Your task to perform on an android device: change alarm snooze length Image 0: 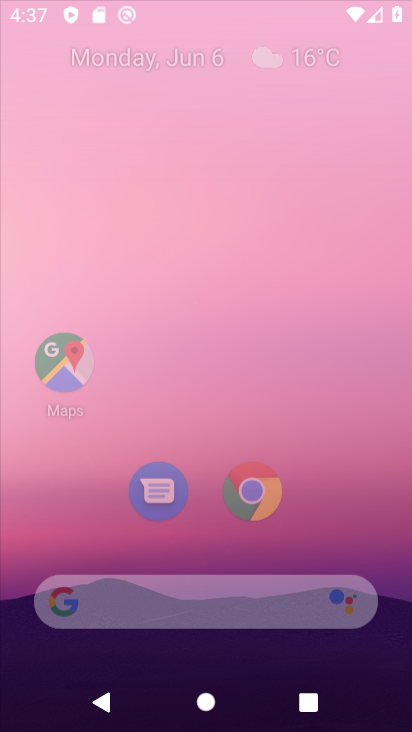
Step 0: click (341, 157)
Your task to perform on an android device: change alarm snooze length Image 1: 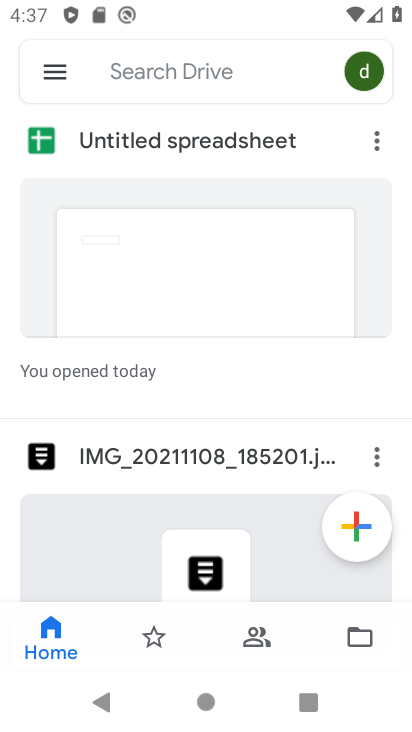
Step 1: press back button
Your task to perform on an android device: change alarm snooze length Image 2: 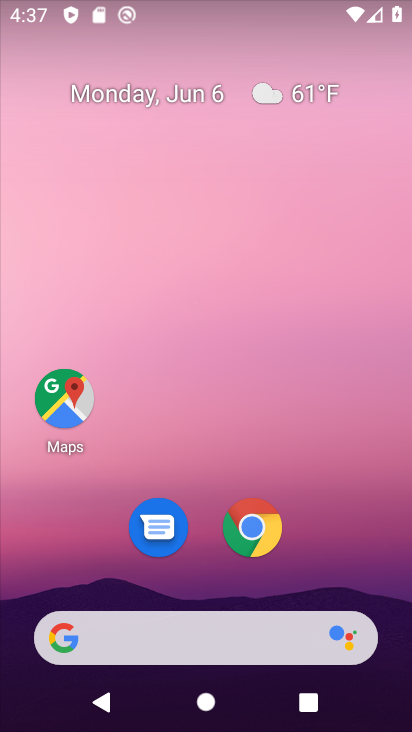
Step 2: drag from (398, 703) to (348, 43)
Your task to perform on an android device: change alarm snooze length Image 3: 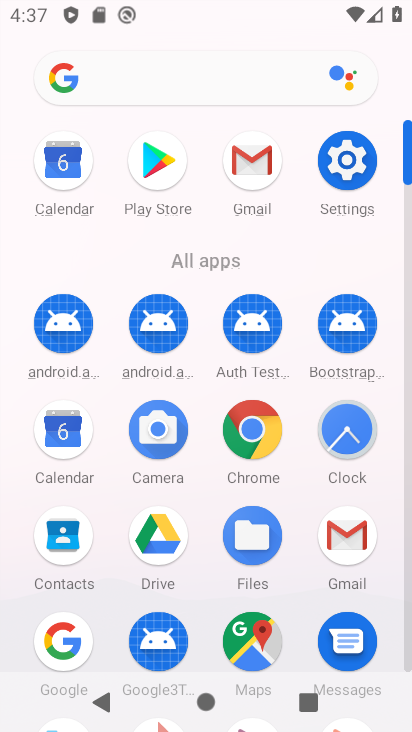
Step 3: click (341, 177)
Your task to perform on an android device: change alarm snooze length Image 4: 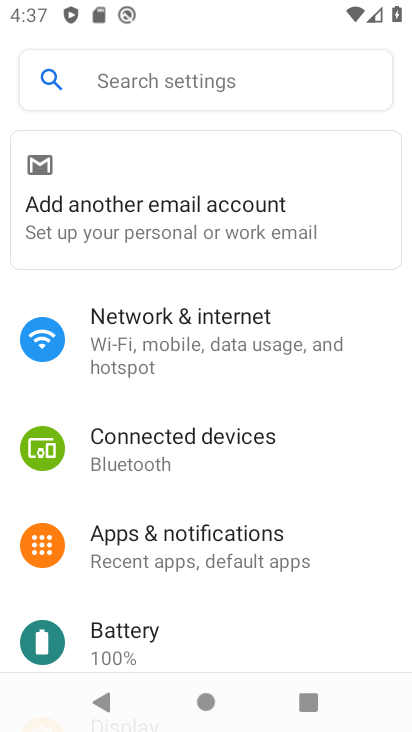
Step 4: drag from (271, 614) to (257, 238)
Your task to perform on an android device: change alarm snooze length Image 5: 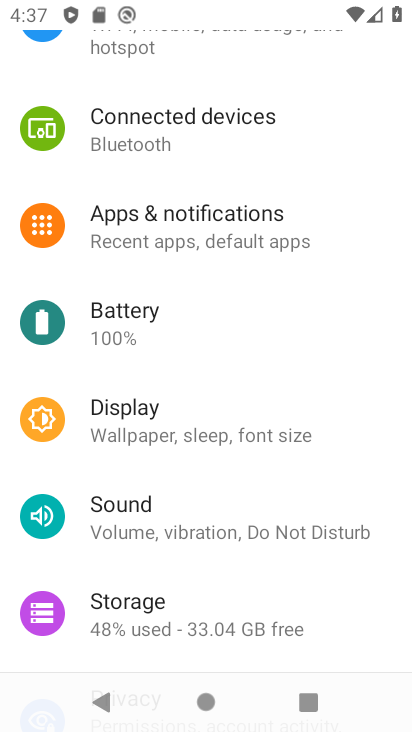
Step 5: drag from (291, 608) to (287, 271)
Your task to perform on an android device: change alarm snooze length Image 6: 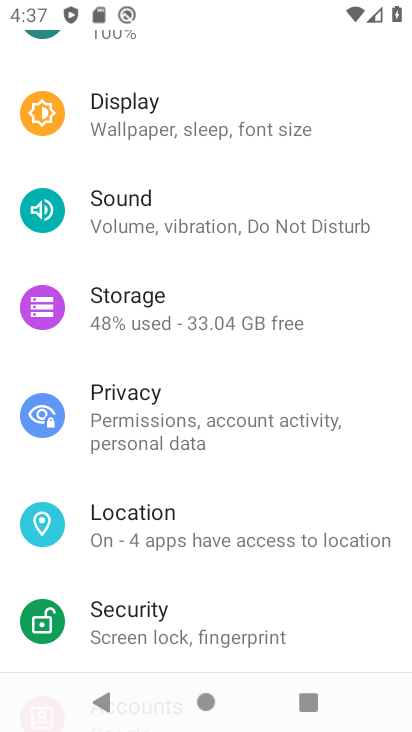
Step 6: click (221, 135)
Your task to perform on an android device: change alarm snooze length Image 7: 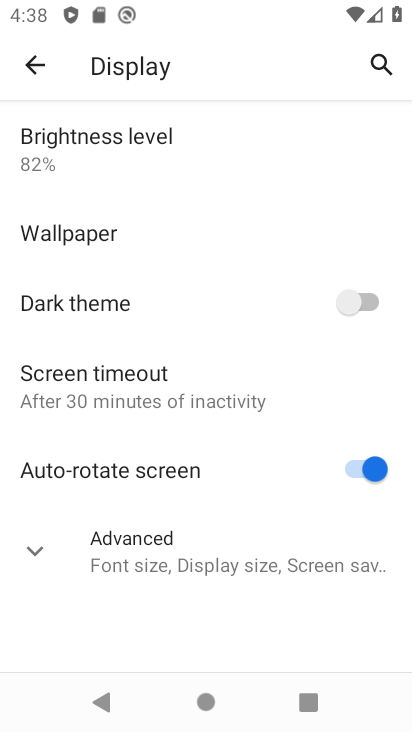
Step 7: press back button
Your task to perform on an android device: change alarm snooze length Image 8: 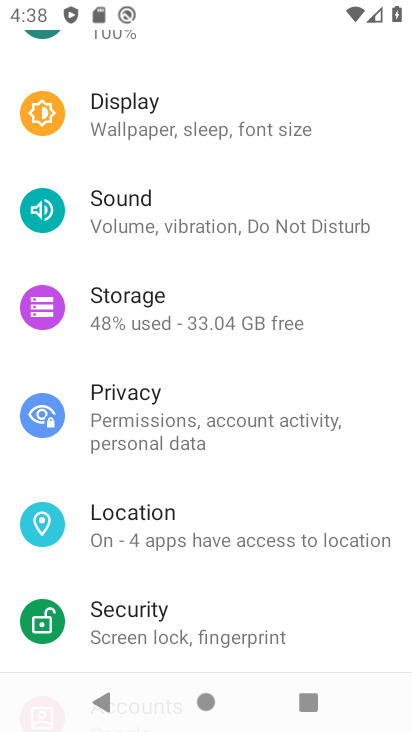
Step 8: press back button
Your task to perform on an android device: change alarm snooze length Image 9: 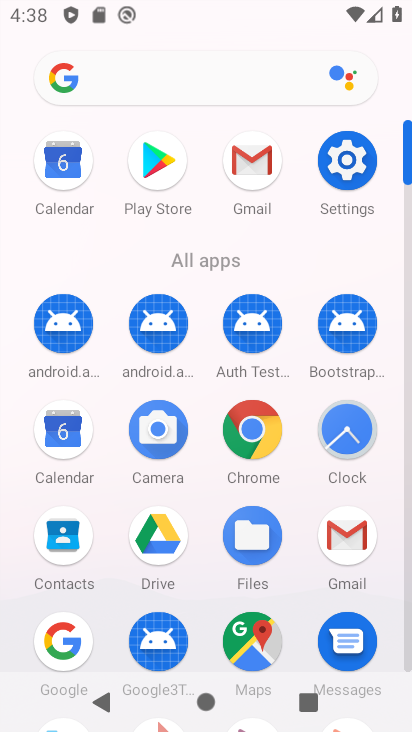
Step 9: click (347, 441)
Your task to perform on an android device: change alarm snooze length Image 10: 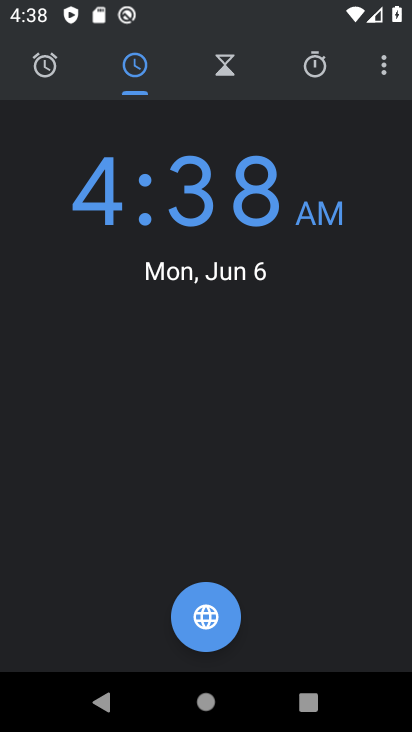
Step 10: click (382, 67)
Your task to perform on an android device: change alarm snooze length Image 11: 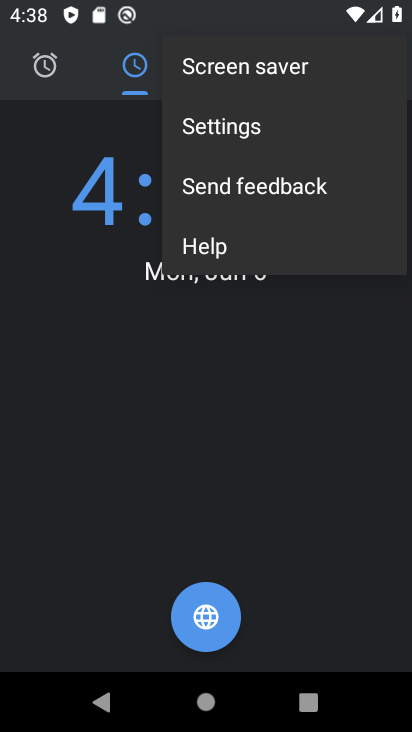
Step 11: click (382, 67)
Your task to perform on an android device: change alarm snooze length Image 12: 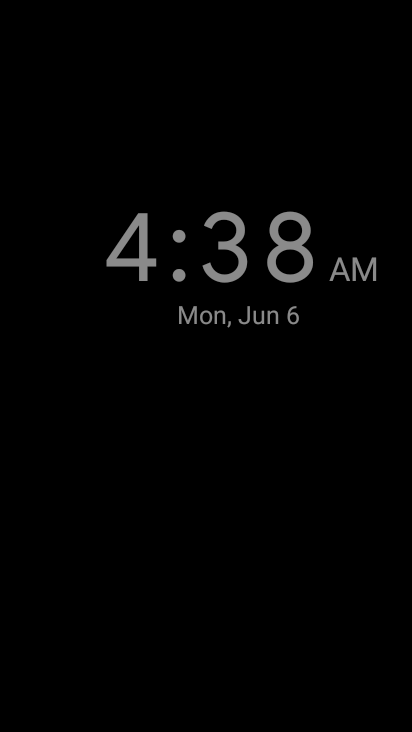
Step 12: press back button
Your task to perform on an android device: change alarm snooze length Image 13: 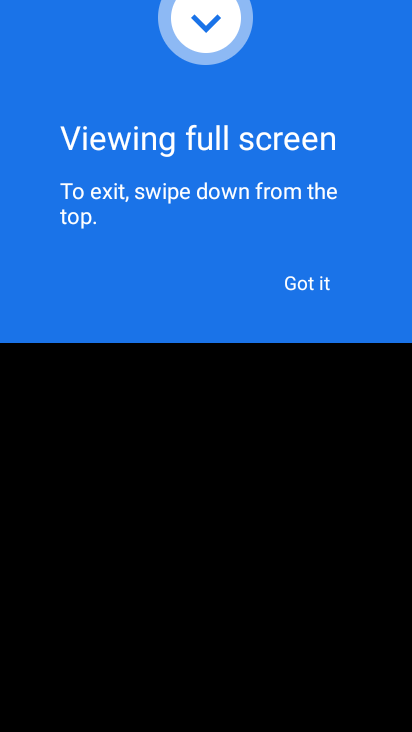
Step 13: press back button
Your task to perform on an android device: change alarm snooze length Image 14: 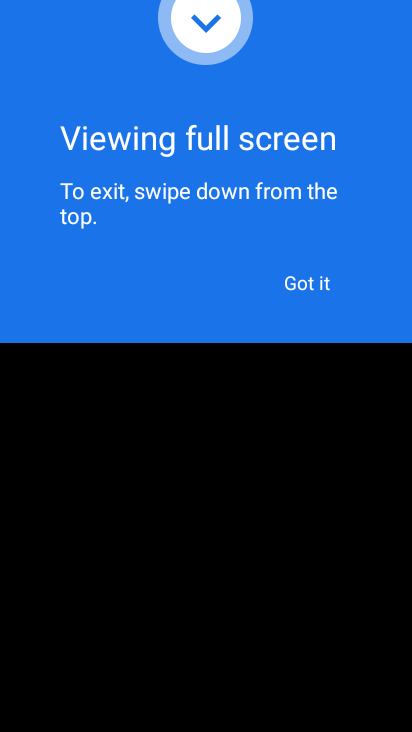
Step 14: press back button
Your task to perform on an android device: change alarm snooze length Image 15: 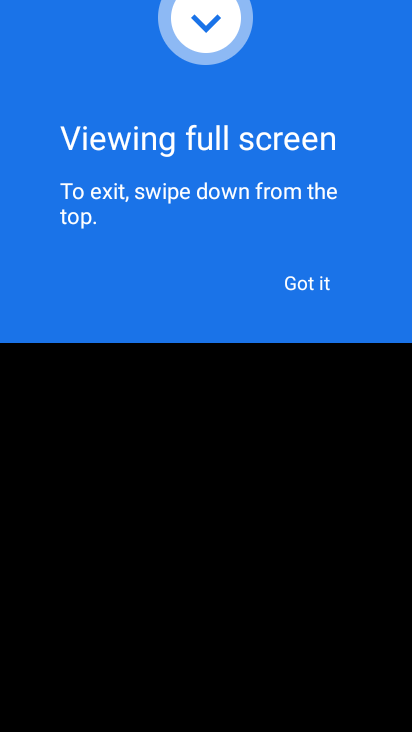
Step 15: click (319, 282)
Your task to perform on an android device: change alarm snooze length Image 16: 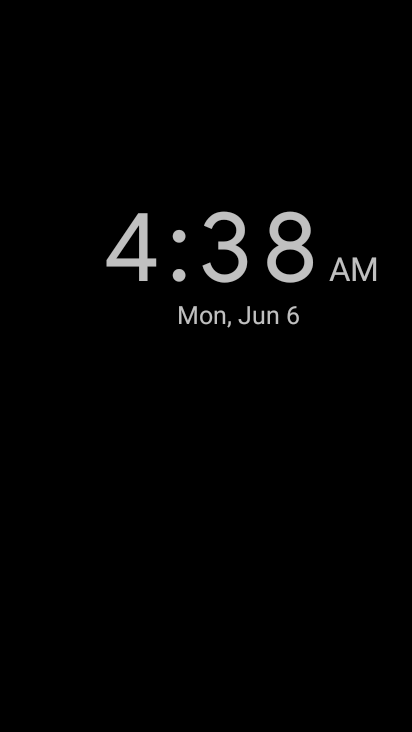
Step 16: press back button
Your task to perform on an android device: change alarm snooze length Image 17: 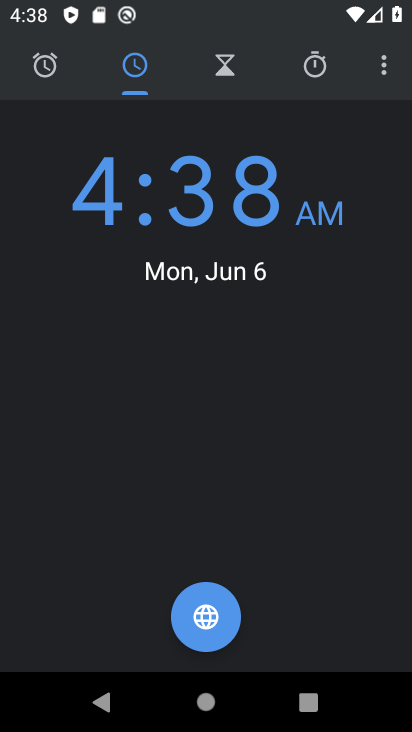
Step 17: click (377, 64)
Your task to perform on an android device: change alarm snooze length Image 18: 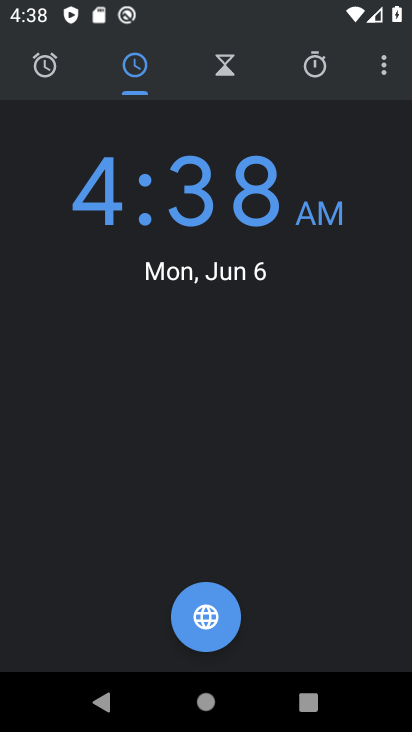
Step 18: click (325, 133)
Your task to perform on an android device: change alarm snooze length Image 19: 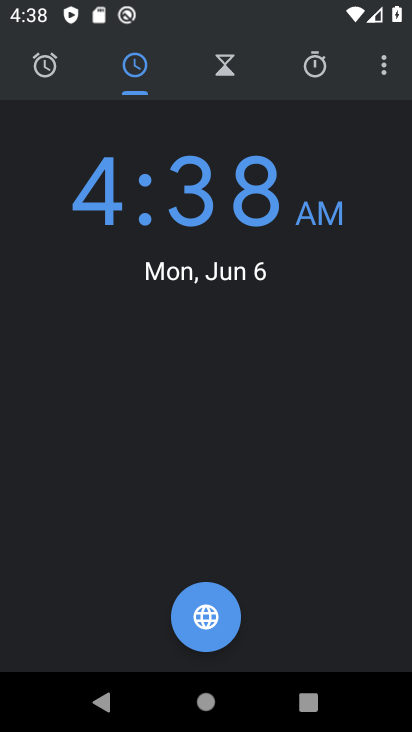
Step 19: click (385, 64)
Your task to perform on an android device: change alarm snooze length Image 20: 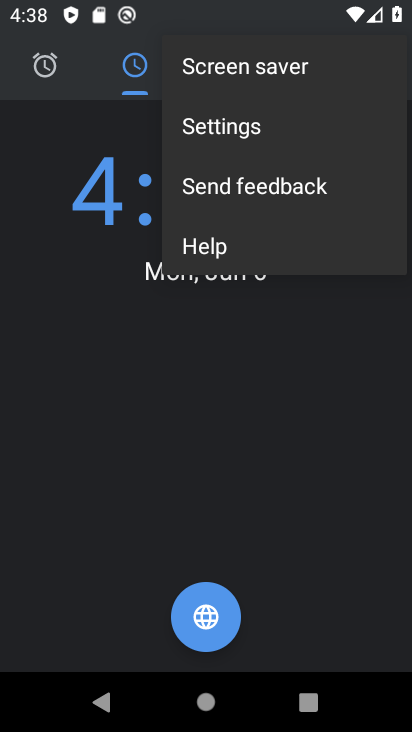
Step 20: click (227, 125)
Your task to perform on an android device: change alarm snooze length Image 21: 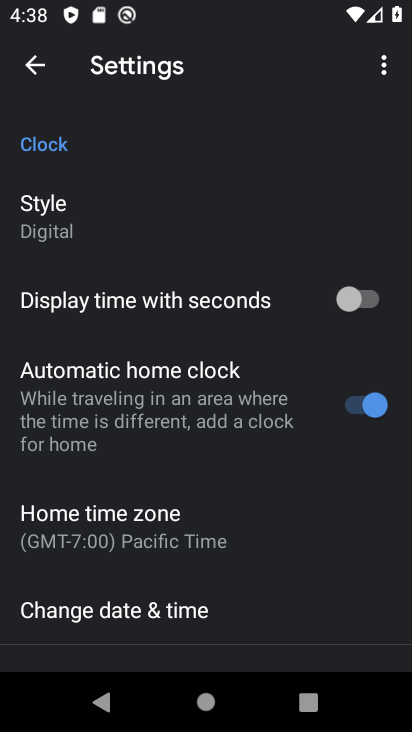
Step 21: click (380, 72)
Your task to perform on an android device: change alarm snooze length Image 22: 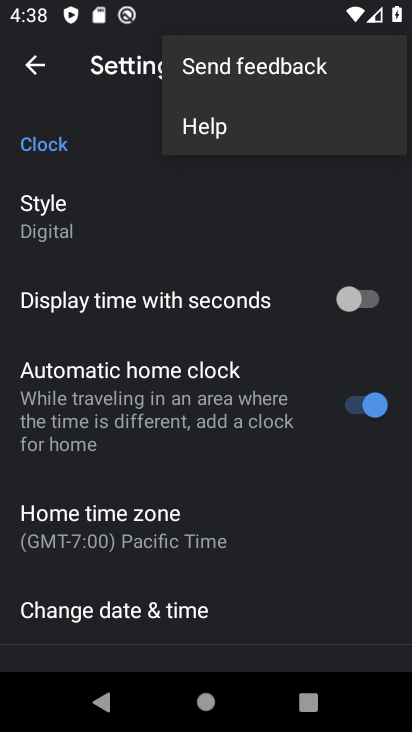
Step 22: click (178, 214)
Your task to perform on an android device: change alarm snooze length Image 23: 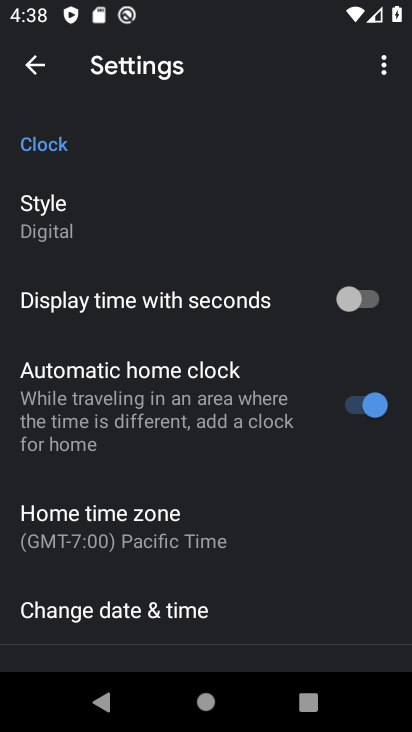
Step 23: drag from (242, 591) to (257, 235)
Your task to perform on an android device: change alarm snooze length Image 24: 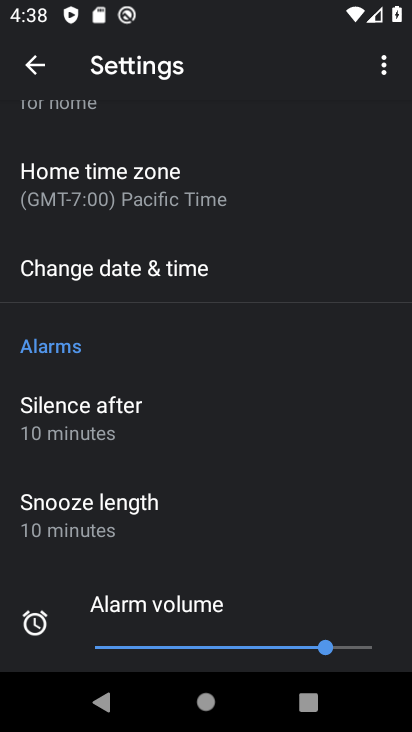
Step 24: click (108, 502)
Your task to perform on an android device: change alarm snooze length Image 25: 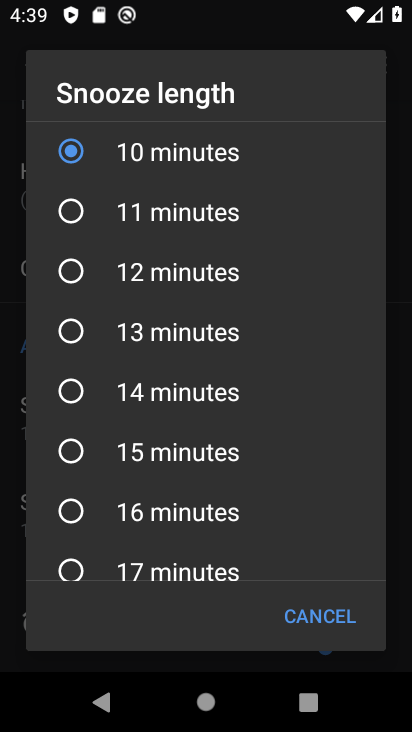
Step 25: click (76, 208)
Your task to perform on an android device: change alarm snooze length Image 26: 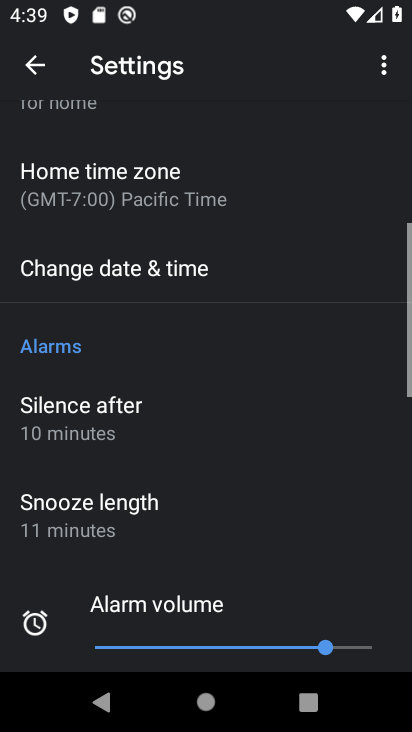
Step 26: task complete